Your task to perform on an android device: Open the map Image 0: 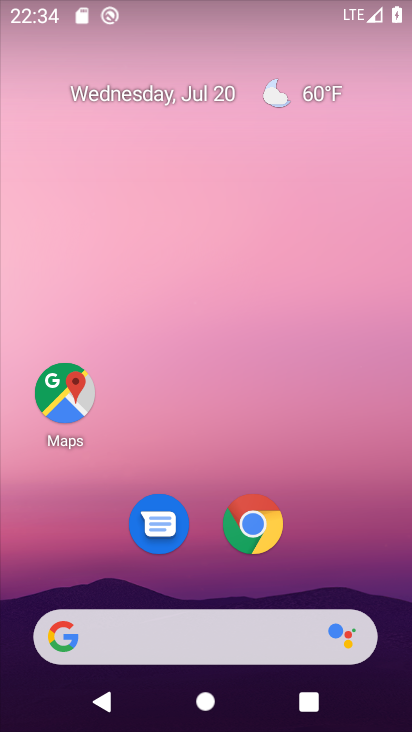
Step 0: click (69, 398)
Your task to perform on an android device: Open the map Image 1: 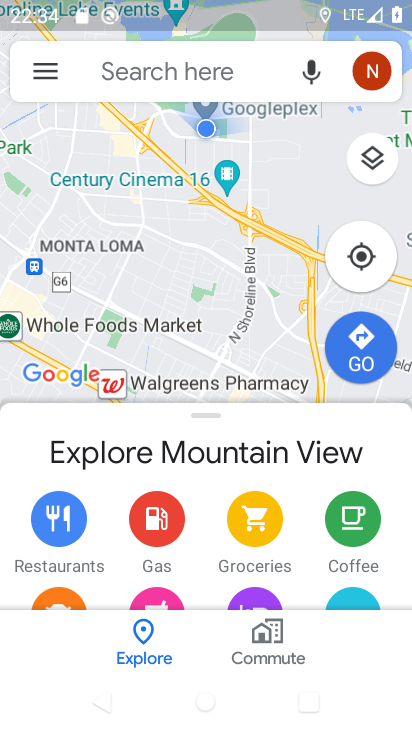
Step 1: task complete